Your task to perform on an android device: Show me popular videos on Youtube Image 0: 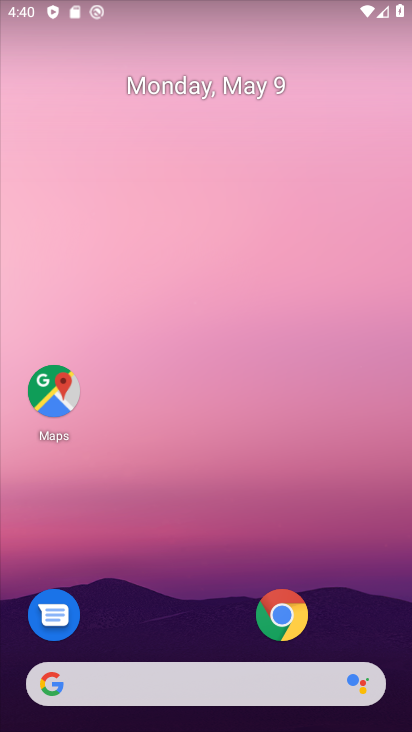
Step 0: drag from (179, 661) to (180, 309)
Your task to perform on an android device: Show me popular videos on Youtube Image 1: 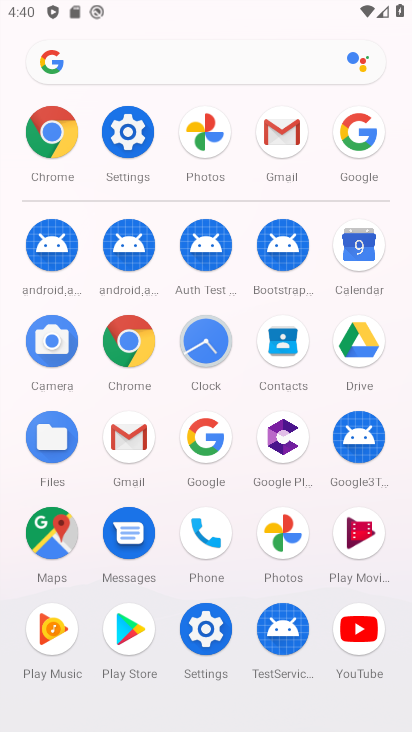
Step 1: click (376, 637)
Your task to perform on an android device: Show me popular videos on Youtube Image 2: 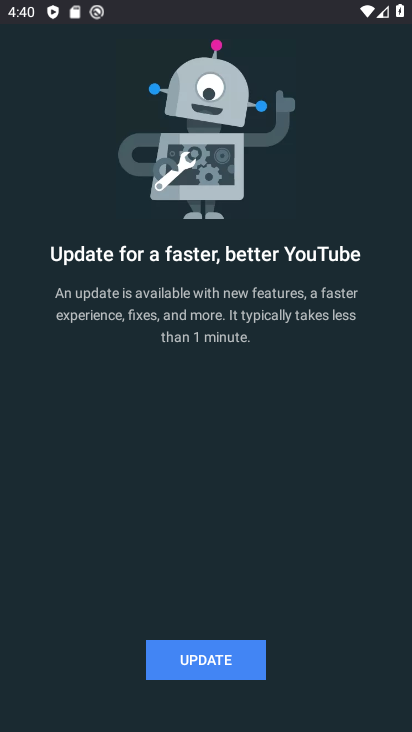
Step 2: click (183, 658)
Your task to perform on an android device: Show me popular videos on Youtube Image 3: 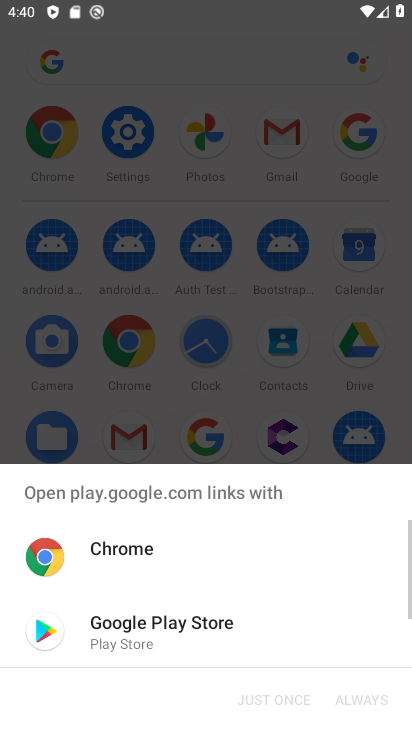
Step 3: click (154, 627)
Your task to perform on an android device: Show me popular videos on Youtube Image 4: 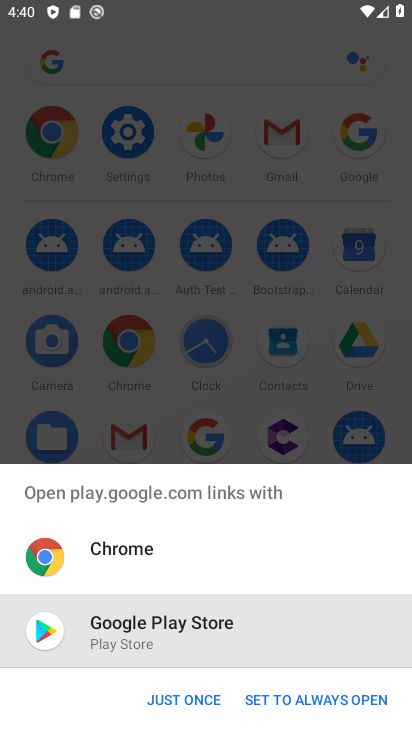
Step 4: click (193, 697)
Your task to perform on an android device: Show me popular videos on Youtube Image 5: 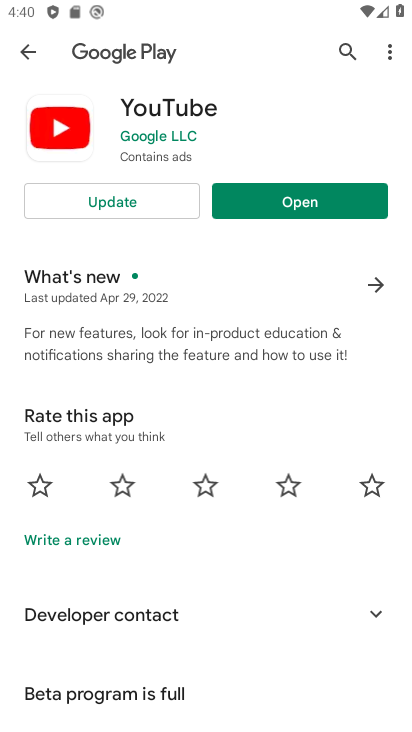
Step 5: click (306, 191)
Your task to perform on an android device: Show me popular videos on Youtube Image 6: 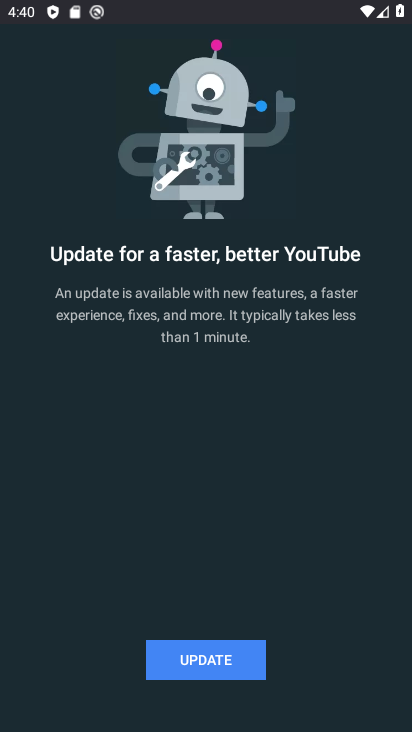
Step 6: click (236, 662)
Your task to perform on an android device: Show me popular videos on Youtube Image 7: 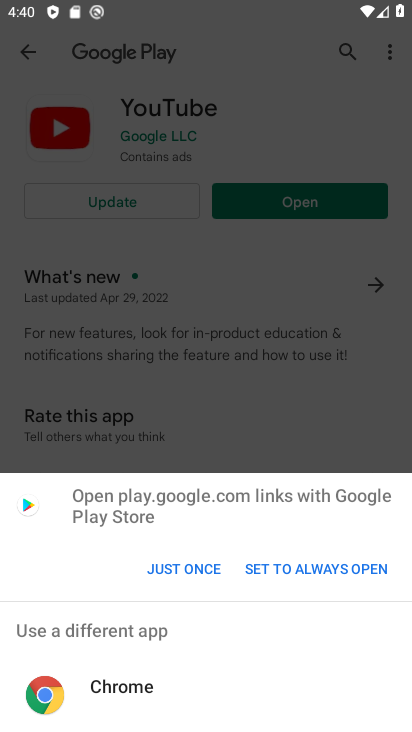
Step 7: click (126, 206)
Your task to perform on an android device: Show me popular videos on Youtube Image 8: 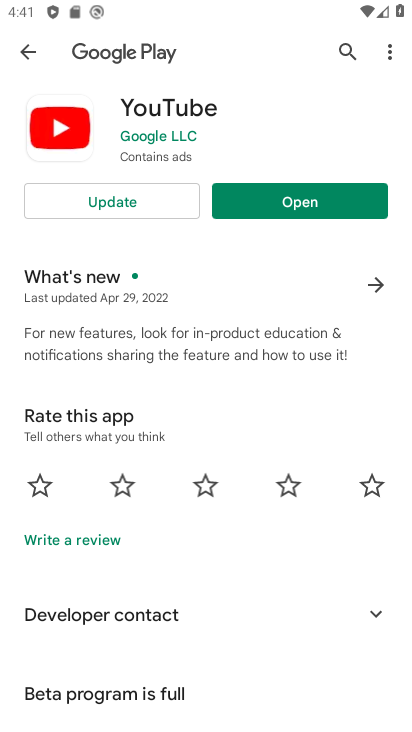
Step 8: click (152, 195)
Your task to perform on an android device: Show me popular videos on Youtube Image 9: 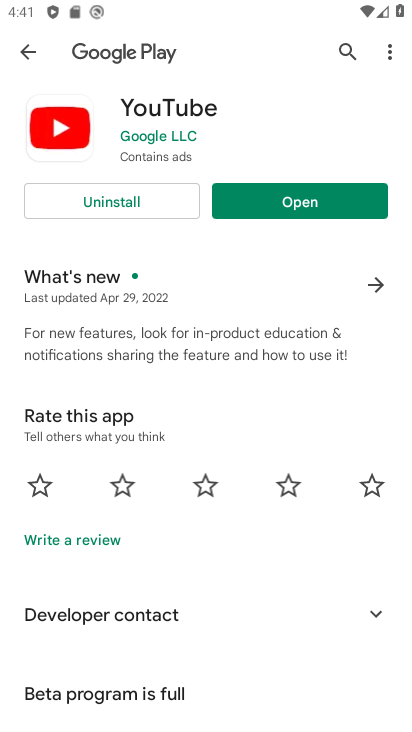
Step 9: click (331, 221)
Your task to perform on an android device: Show me popular videos on Youtube Image 10: 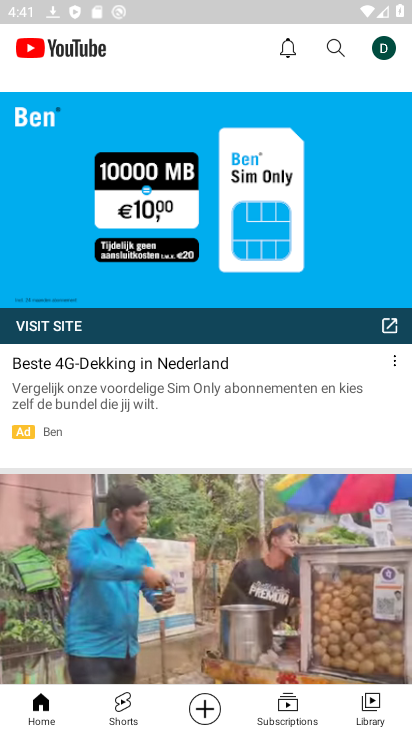
Step 10: task complete